Your task to perform on an android device: Open internet settings Image 0: 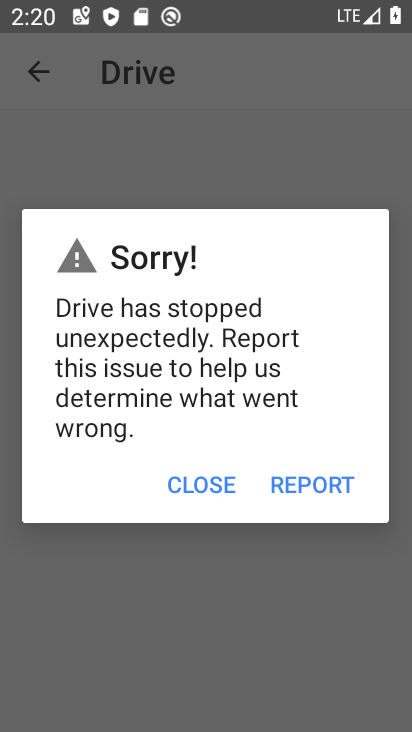
Step 0: press home button
Your task to perform on an android device: Open internet settings Image 1: 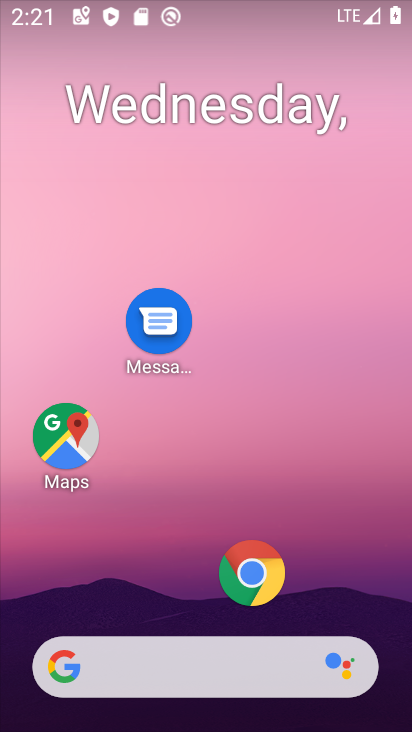
Step 1: drag from (177, 571) to (242, 68)
Your task to perform on an android device: Open internet settings Image 2: 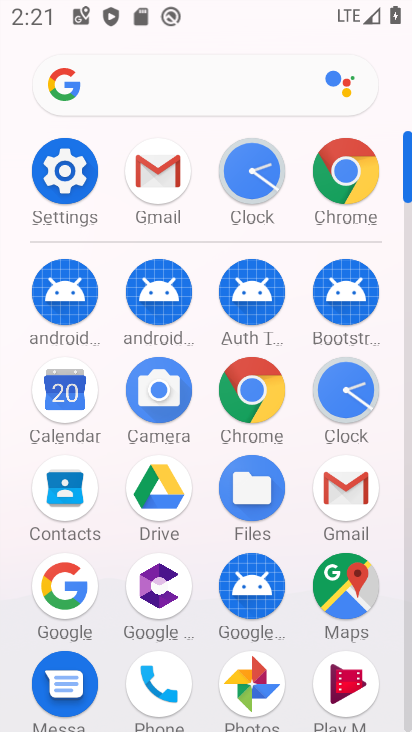
Step 2: click (64, 170)
Your task to perform on an android device: Open internet settings Image 3: 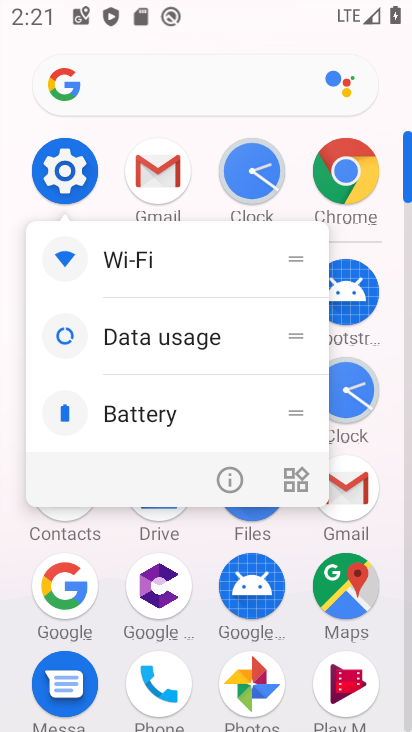
Step 3: click (73, 164)
Your task to perform on an android device: Open internet settings Image 4: 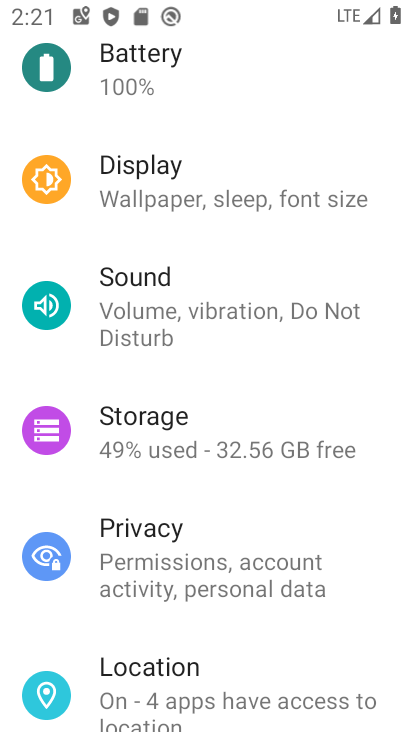
Step 4: drag from (185, 122) to (208, 618)
Your task to perform on an android device: Open internet settings Image 5: 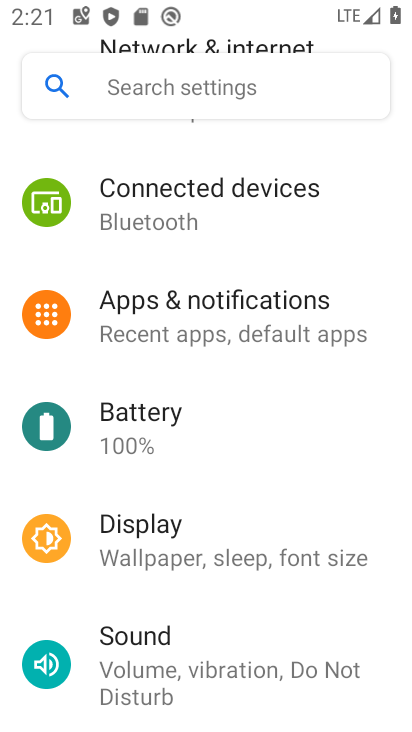
Step 5: drag from (168, 217) to (187, 602)
Your task to perform on an android device: Open internet settings Image 6: 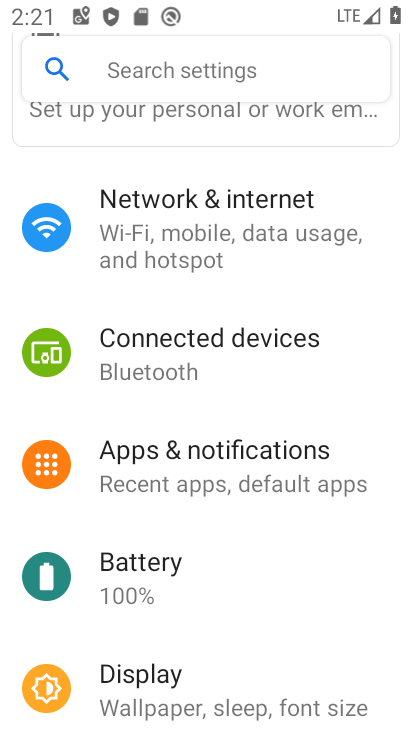
Step 6: click (162, 270)
Your task to perform on an android device: Open internet settings Image 7: 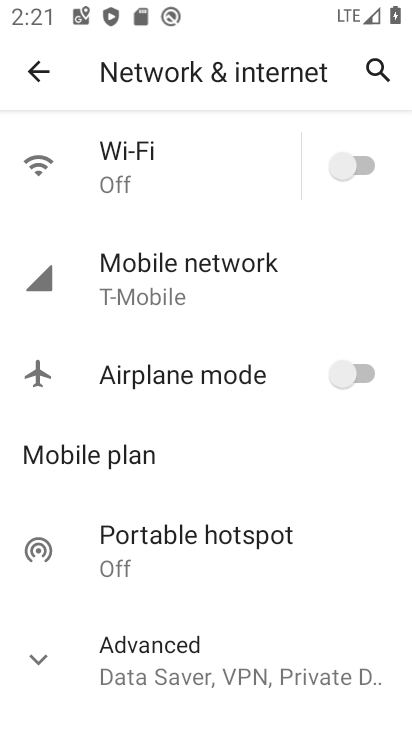
Step 7: click (145, 146)
Your task to perform on an android device: Open internet settings Image 8: 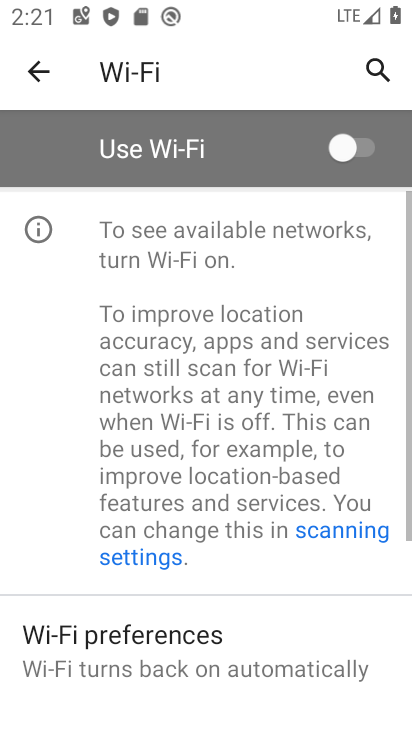
Step 8: click (340, 153)
Your task to perform on an android device: Open internet settings Image 9: 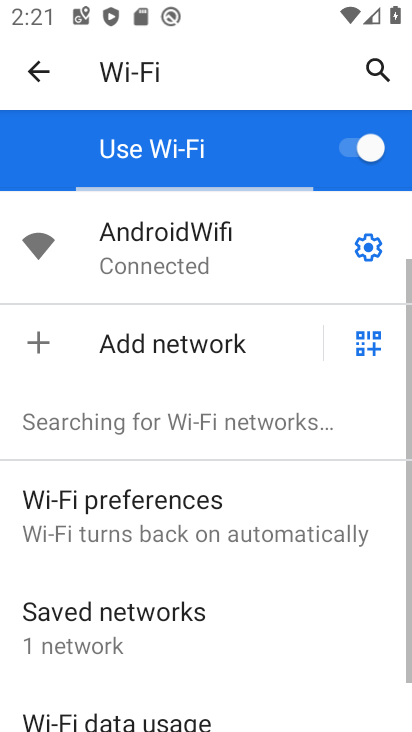
Step 9: click (364, 244)
Your task to perform on an android device: Open internet settings Image 10: 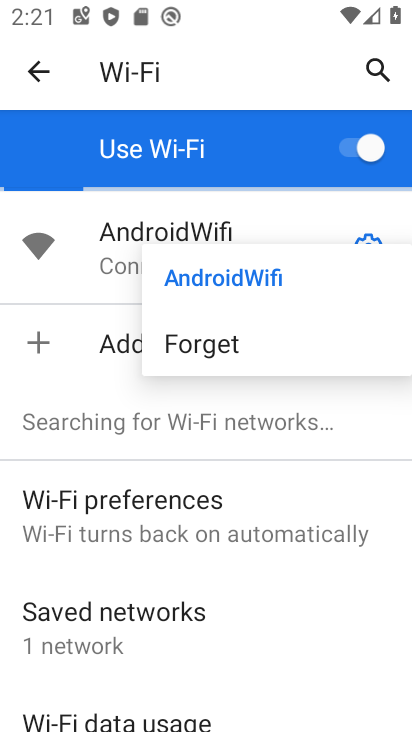
Step 10: click (326, 213)
Your task to perform on an android device: Open internet settings Image 11: 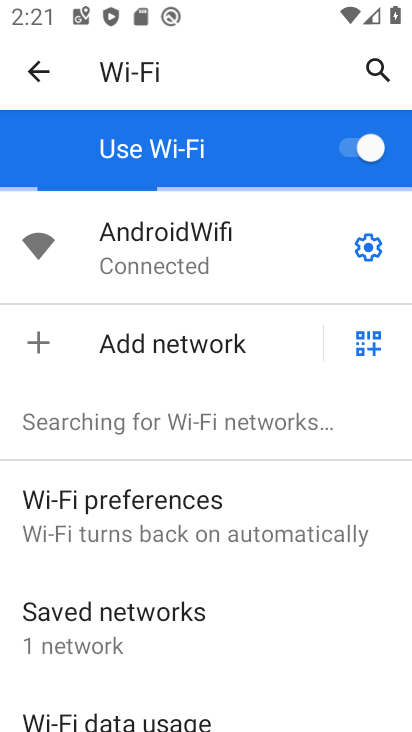
Step 11: click (366, 249)
Your task to perform on an android device: Open internet settings Image 12: 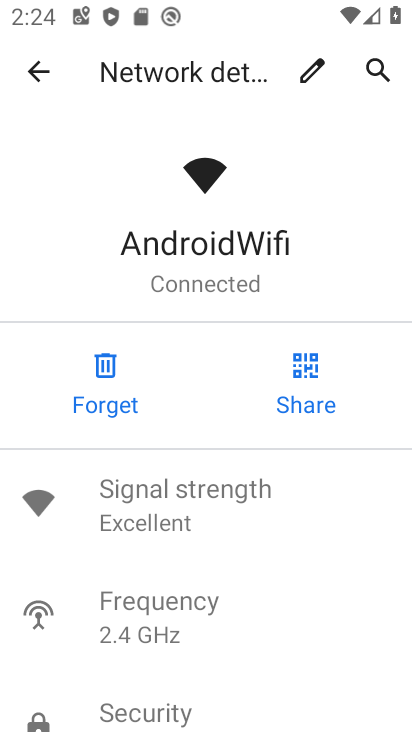
Step 12: task complete